Your task to perform on an android device: Open CNN.com Image 0: 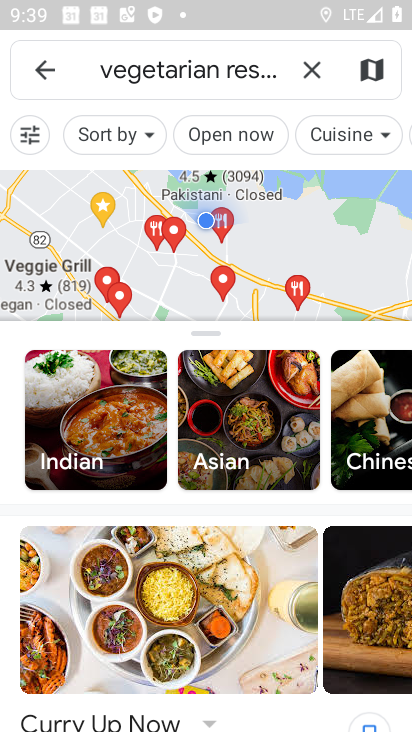
Step 0: press home button
Your task to perform on an android device: Open CNN.com Image 1: 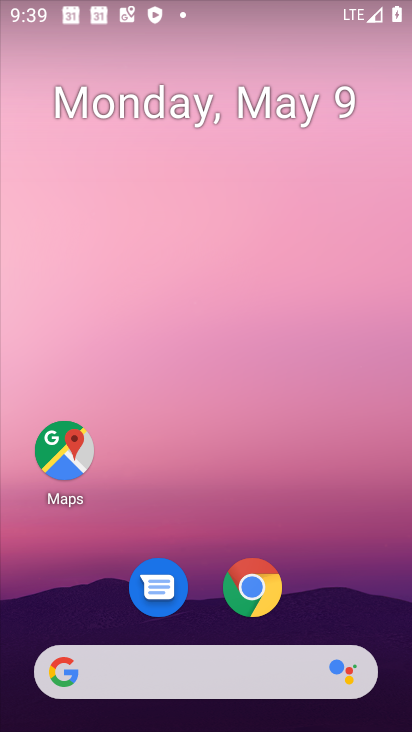
Step 1: click (153, 663)
Your task to perform on an android device: Open CNN.com Image 2: 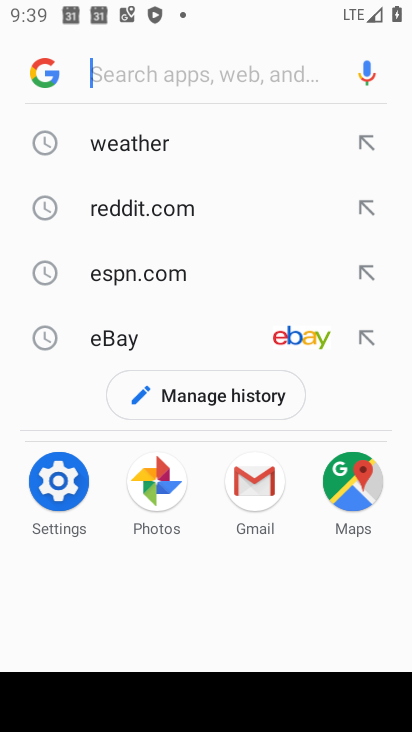
Step 2: type "cnn.com"
Your task to perform on an android device: Open CNN.com Image 3: 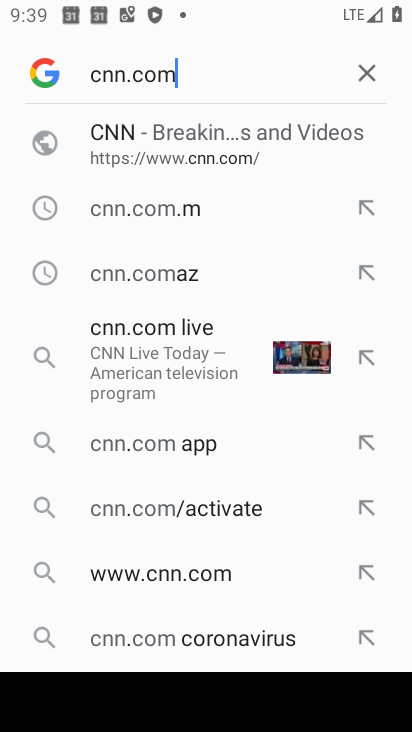
Step 3: click (302, 136)
Your task to perform on an android device: Open CNN.com Image 4: 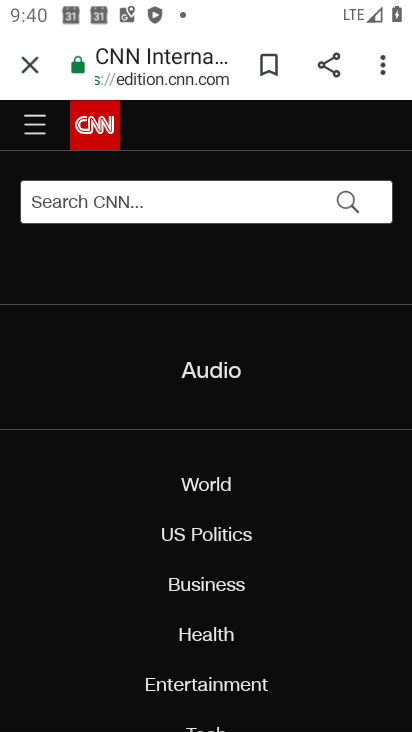
Step 4: task complete